Your task to perform on an android device: add a contact Image 0: 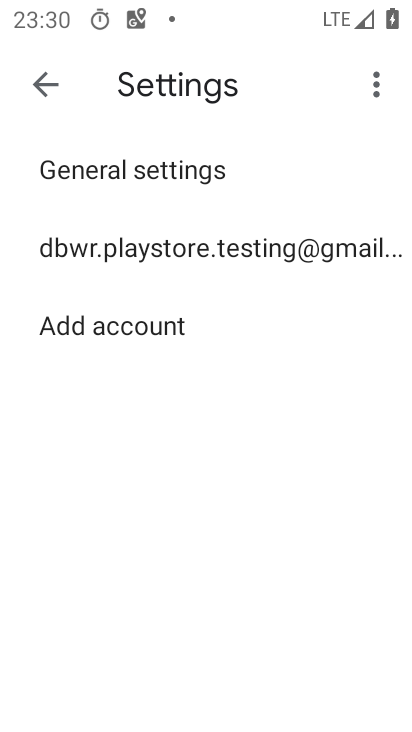
Step 0: press home button
Your task to perform on an android device: add a contact Image 1: 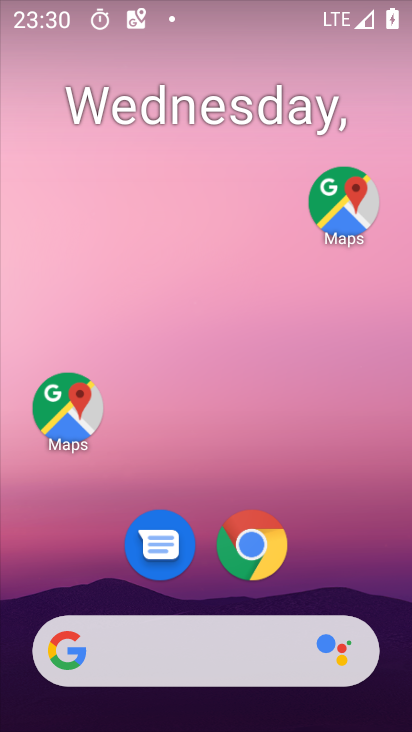
Step 1: drag from (350, 594) to (354, 36)
Your task to perform on an android device: add a contact Image 2: 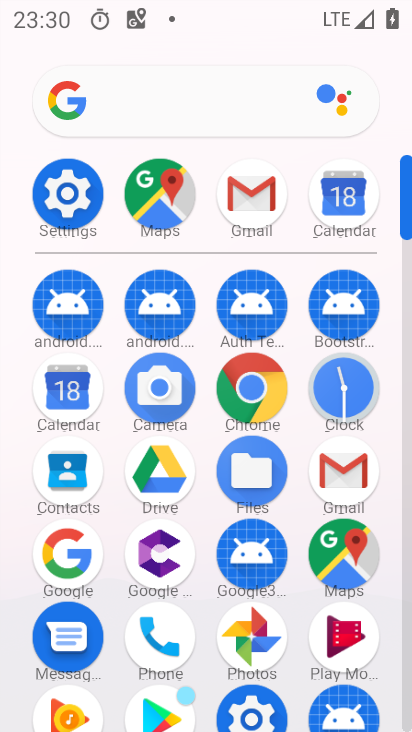
Step 2: click (58, 470)
Your task to perform on an android device: add a contact Image 3: 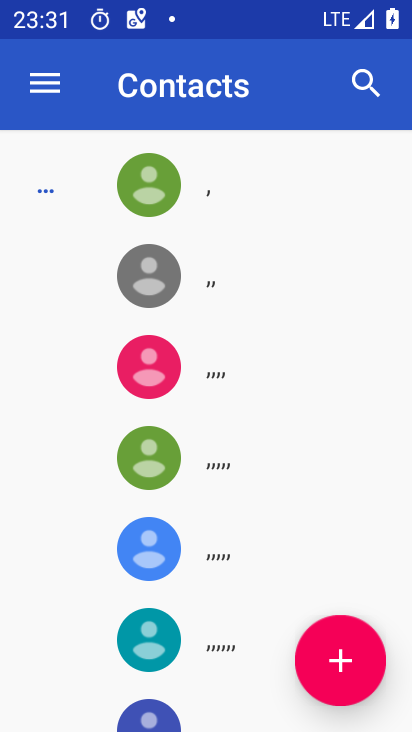
Step 3: click (343, 654)
Your task to perform on an android device: add a contact Image 4: 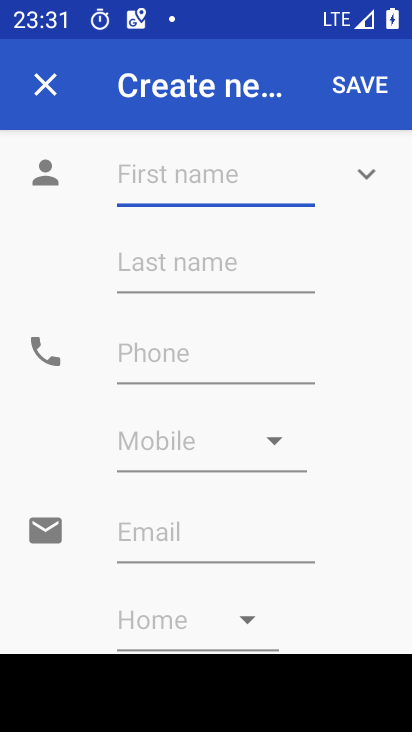
Step 4: type "cfvfcfvfcfvfcvfcvfcvfcvfcv"
Your task to perform on an android device: add a contact Image 5: 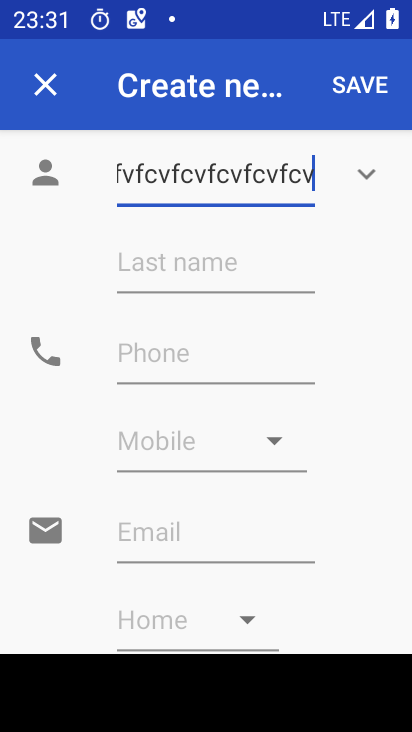
Step 5: click (149, 357)
Your task to perform on an android device: add a contact Image 6: 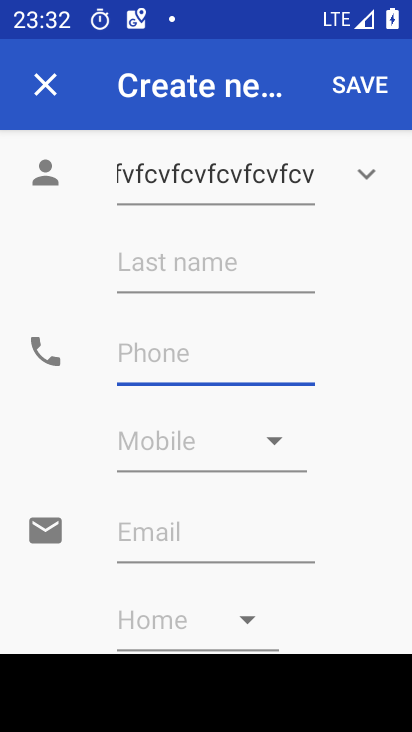
Step 6: type "65767878787"
Your task to perform on an android device: add a contact Image 7: 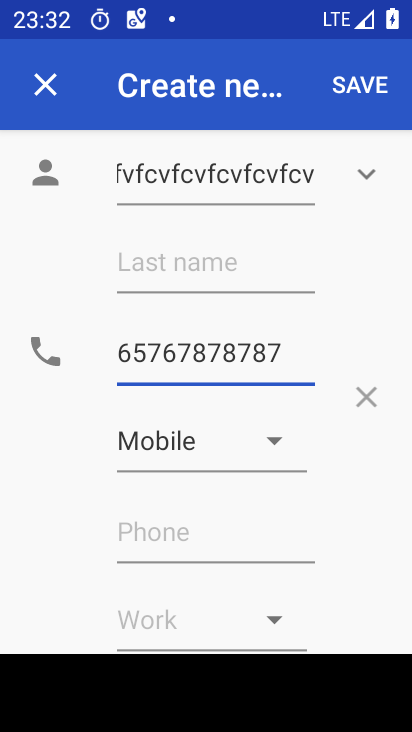
Step 7: click (342, 81)
Your task to perform on an android device: add a contact Image 8: 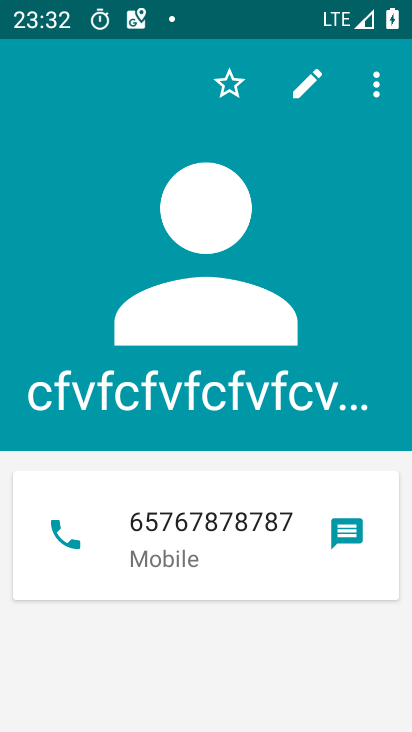
Step 8: task complete